Your task to perform on an android device: empty trash in google photos Image 0: 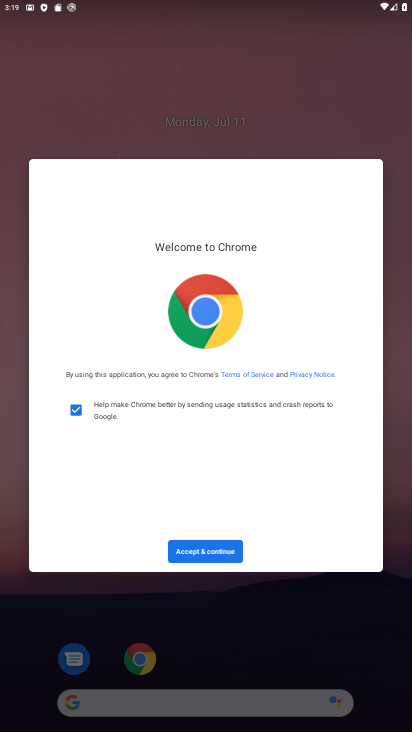
Step 0: press home button
Your task to perform on an android device: empty trash in google photos Image 1: 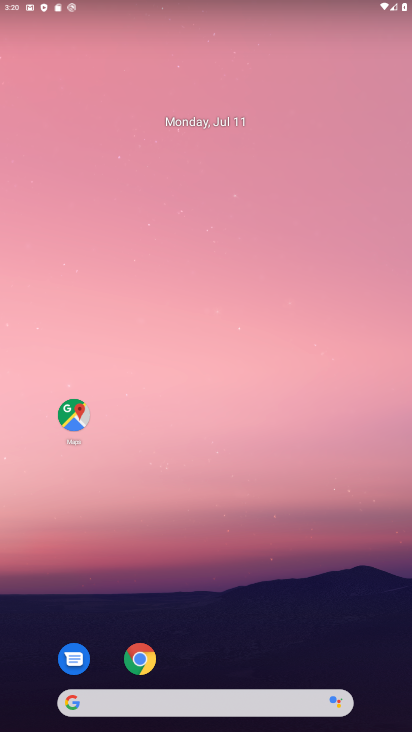
Step 1: drag from (225, 235) to (219, 104)
Your task to perform on an android device: empty trash in google photos Image 2: 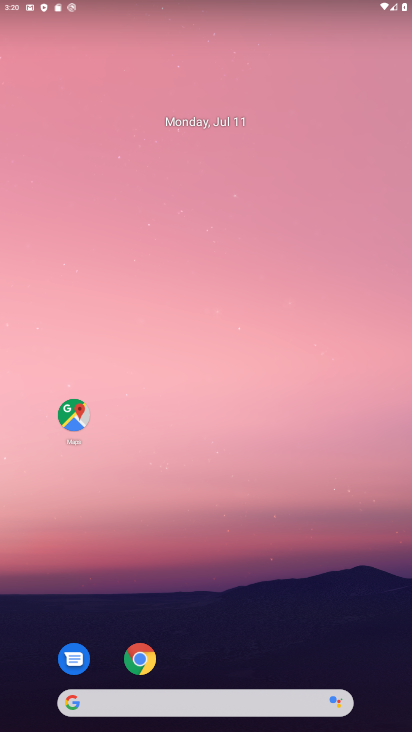
Step 2: drag from (204, 649) to (232, 219)
Your task to perform on an android device: empty trash in google photos Image 3: 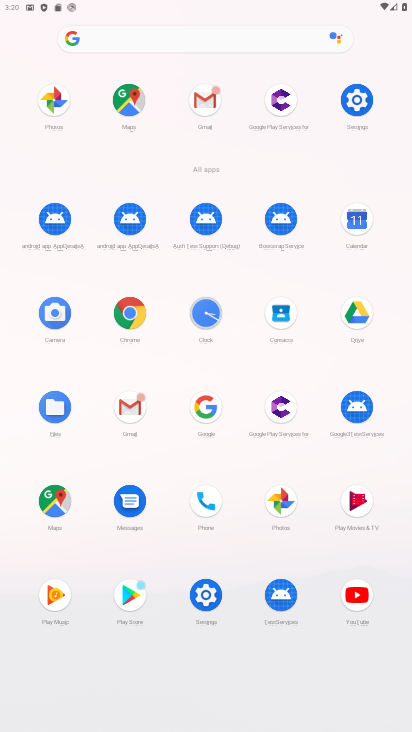
Step 3: click (277, 502)
Your task to perform on an android device: empty trash in google photos Image 4: 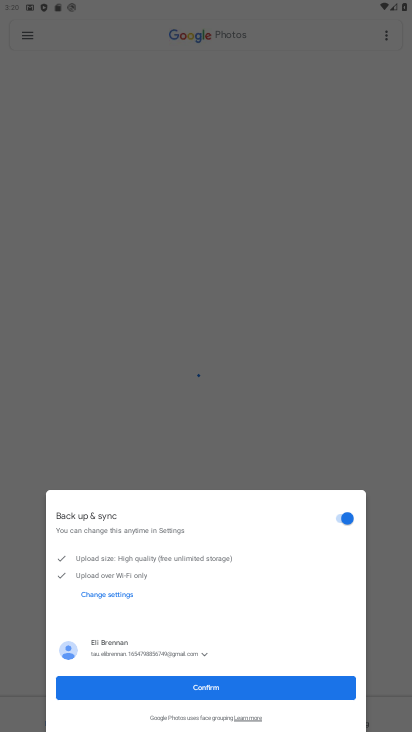
Step 4: click (217, 680)
Your task to perform on an android device: empty trash in google photos Image 5: 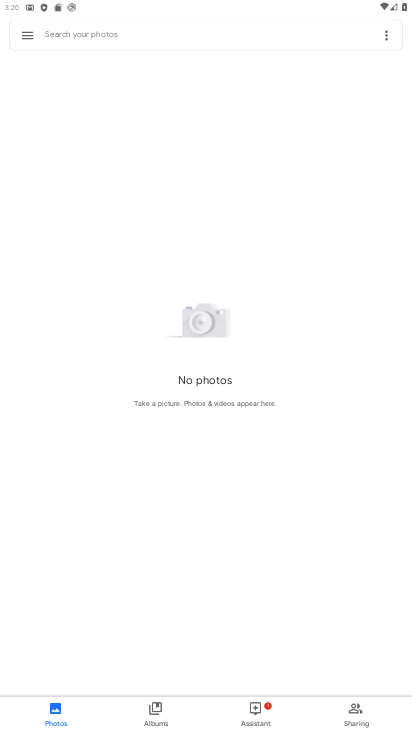
Step 5: click (152, 715)
Your task to perform on an android device: empty trash in google photos Image 6: 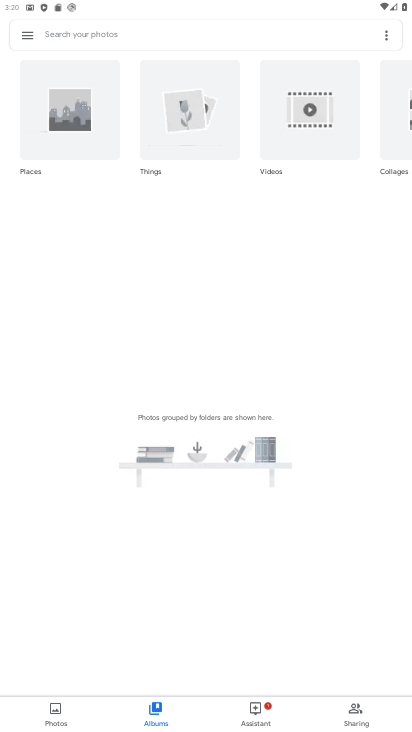
Step 6: click (29, 32)
Your task to perform on an android device: empty trash in google photos Image 7: 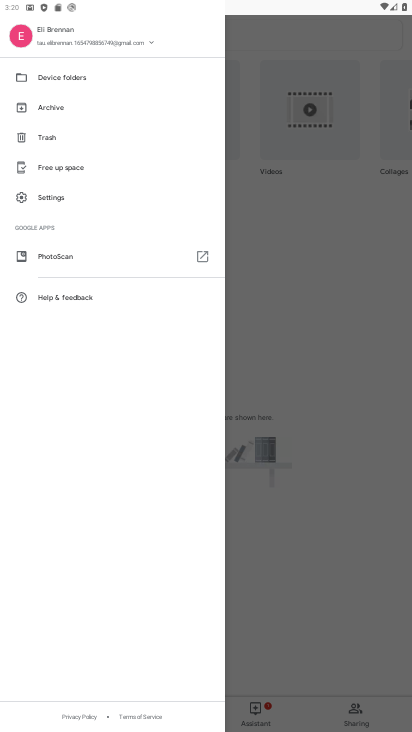
Step 7: click (54, 136)
Your task to perform on an android device: empty trash in google photos Image 8: 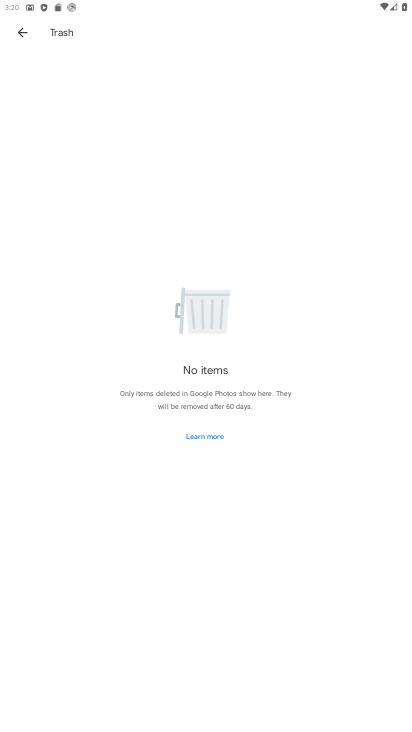
Step 8: task complete